Your task to perform on an android device: Open notification settings Image 0: 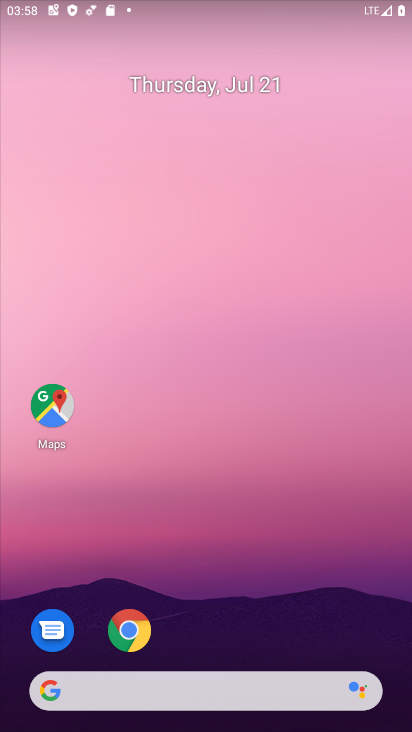
Step 0: drag from (201, 643) to (70, 1)
Your task to perform on an android device: Open notification settings Image 1: 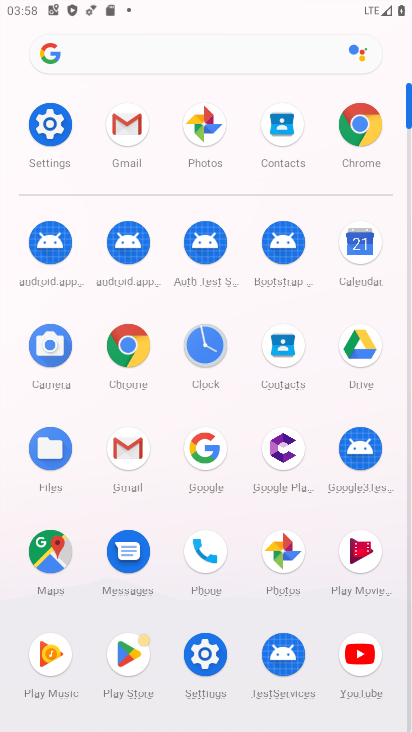
Step 1: click (202, 664)
Your task to perform on an android device: Open notification settings Image 2: 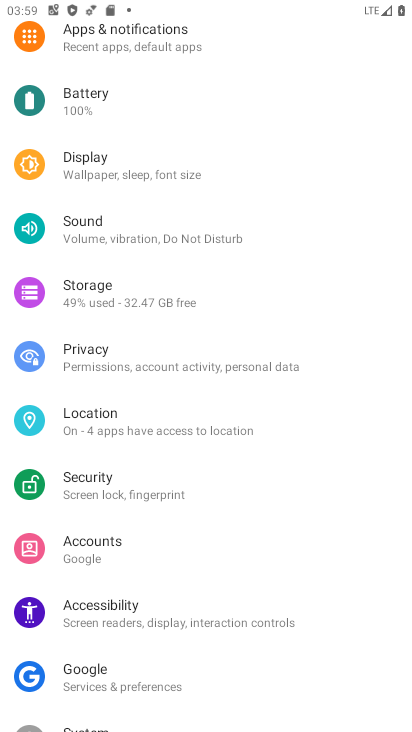
Step 2: task complete